Your task to perform on an android device: Open Chrome and go to settings Image 0: 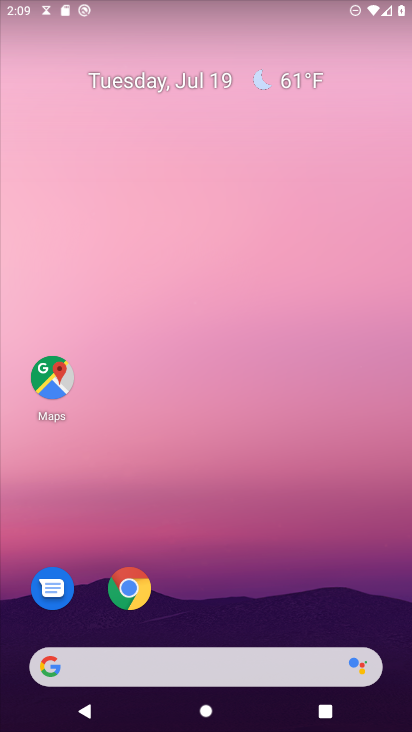
Step 0: drag from (261, 654) to (182, 99)
Your task to perform on an android device: Open Chrome and go to settings Image 1: 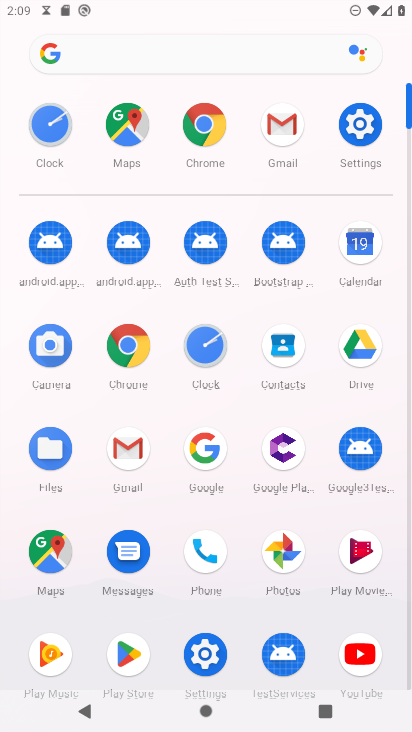
Step 1: click (196, 129)
Your task to perform on an android device: Open Chrome and go to settings Image 2: 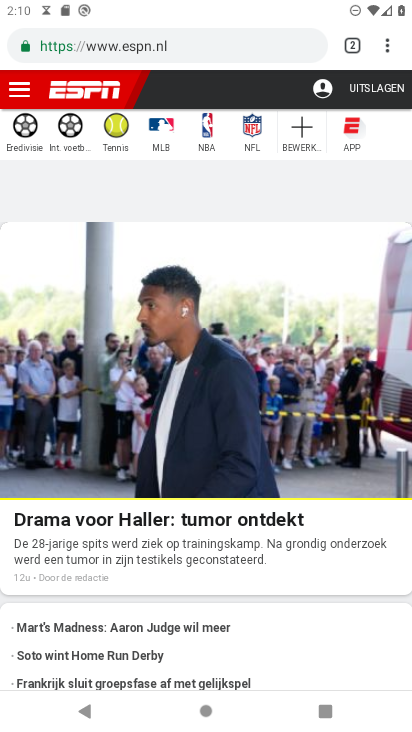
Step 2: click (395, 65)
Your task to perform on an android device: Open Chrome and go to settings Image 3: 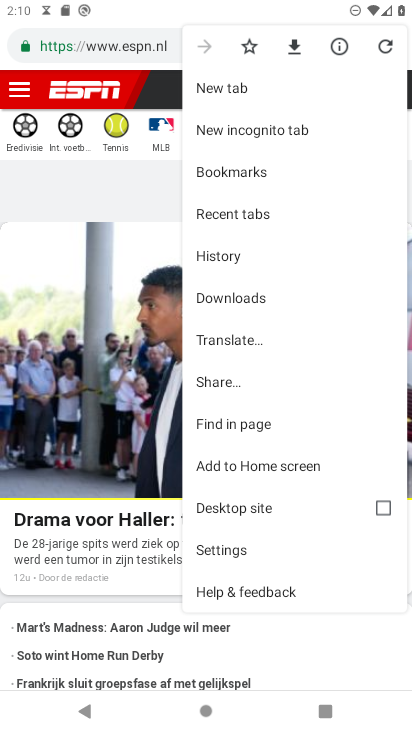
Step 3: click (230, 550)
Your task to perform on an android device: Open Chrome and go to settings Image 4: 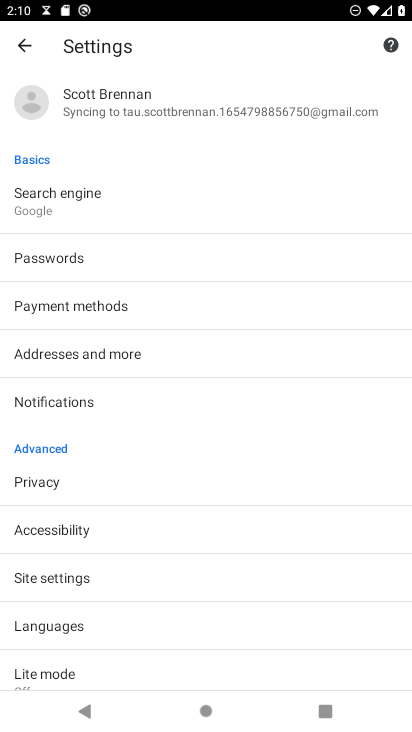
Step 4: task complete